Your task to perform on an android device: Go to wifi settings Image 0: 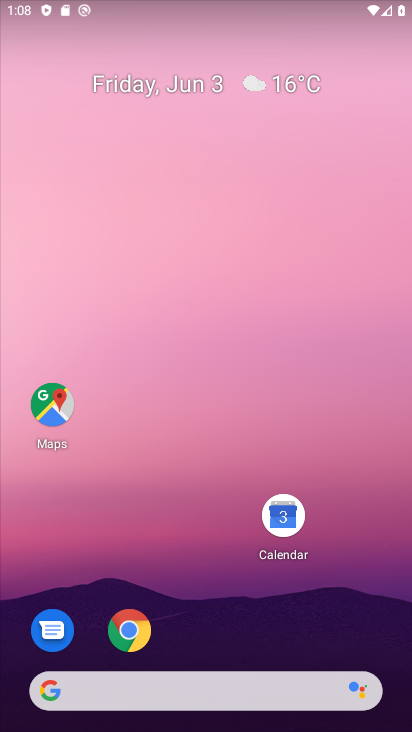
Step 0: press home button
Your task to perform on an android device: Go to wifi settings Image 1: 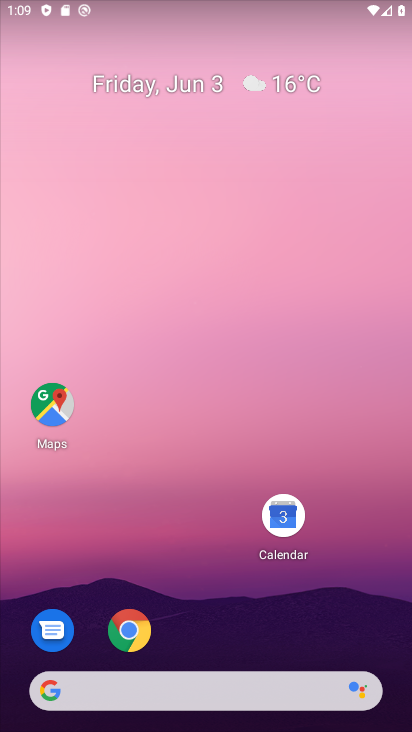
Step 1: drag from (252, 710) to (320, 297)
Your task to perform on an android device: Go to wifi settings Image 2: 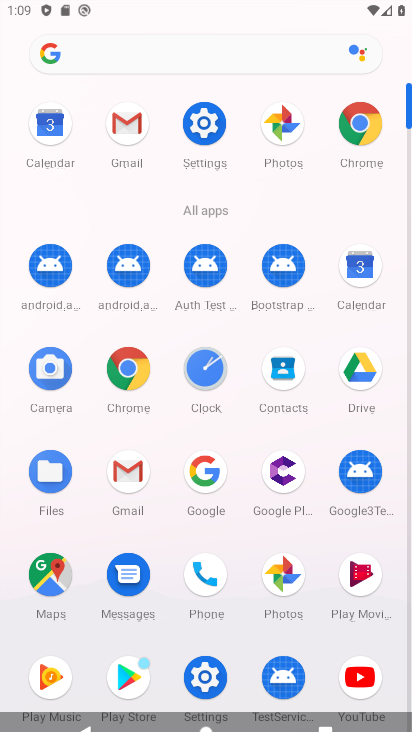
Step 2: drag from (212, 660) to (218, 615)
Your task to perform on an android device: Go to wifi settings Image 3: 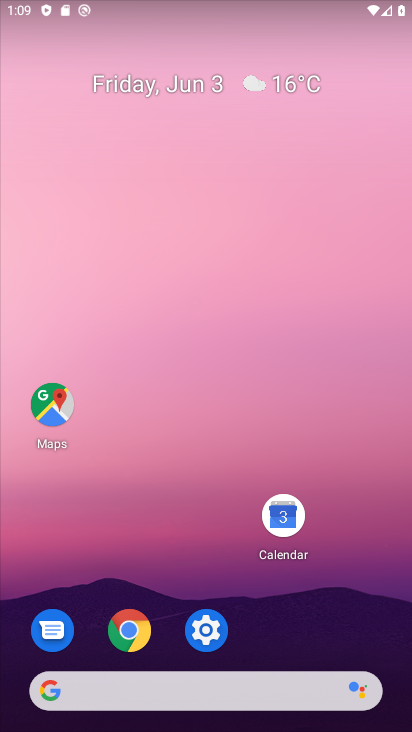
Step 3: click (205, 624)
Your task to perform on an android device: Go to wifi settings Image 4: 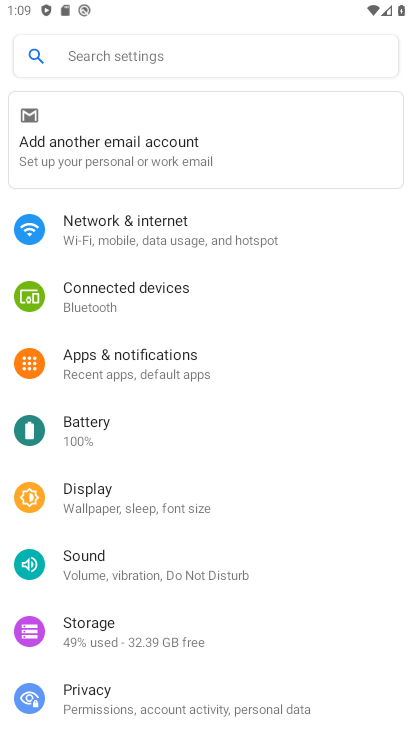
Step 4: click (99, 228)
Your task to perform on an android device: Go to wifi settings Image 5: 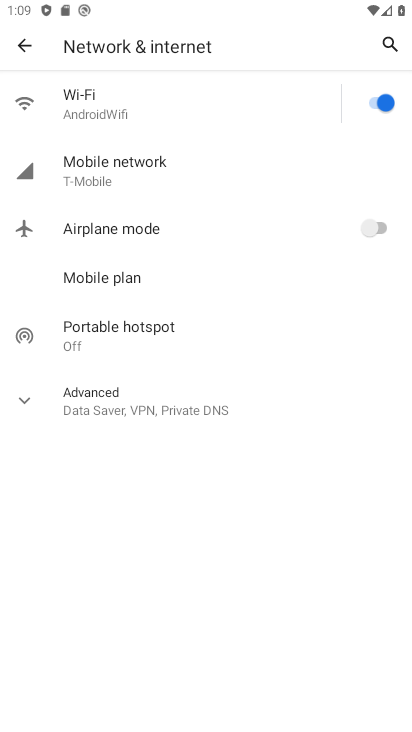
Step 5: click (173, 107)
Your task to perform on an android device: Go to wifi settings Image 6: 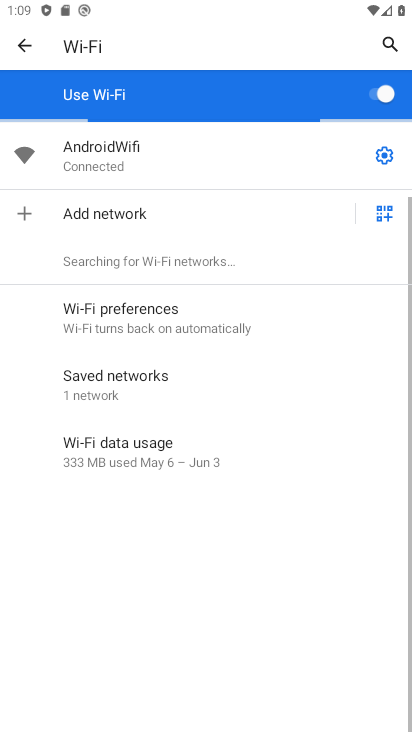
Step 6: task complete